Your task to perform on an android device: toggle improve location accuracy Image 0: 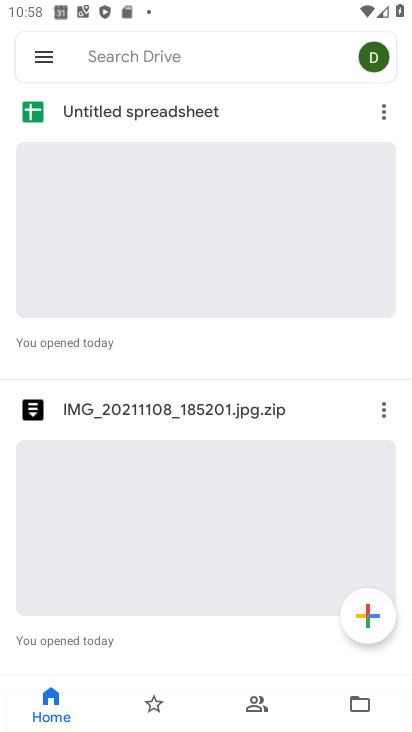
Step 0: press home button
Your task to perform on an android device: toggle improve location accuracy Image 1: 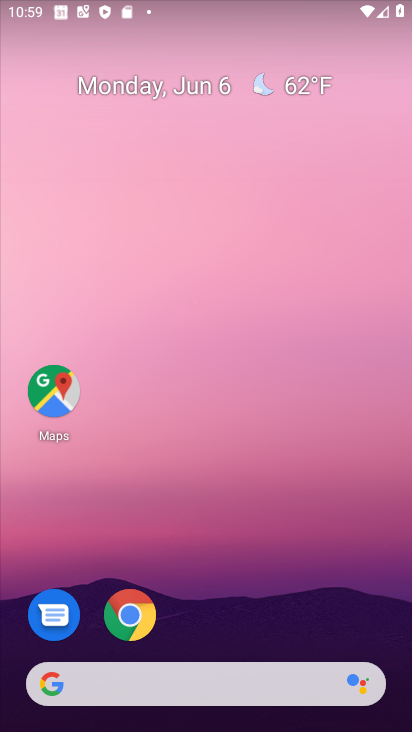
Step 1: drag from (256, 680) to (249, 172)
Your task to perform on an android device: toggle improve location accuracy Image 2: 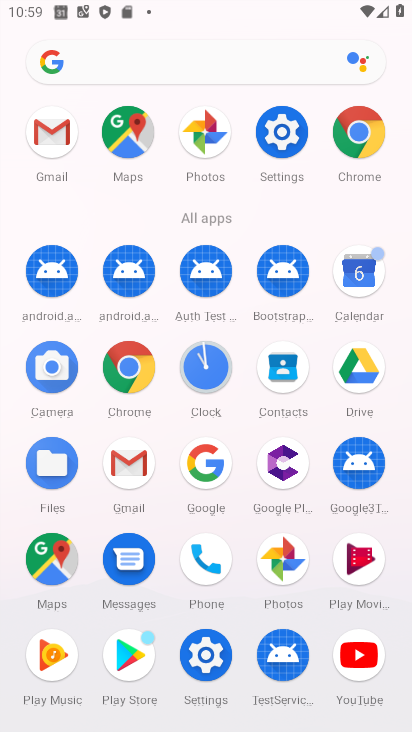
Step 2: click (265, 154)
Your task to perform on an android device: toggle improve location accuracy Image 3: 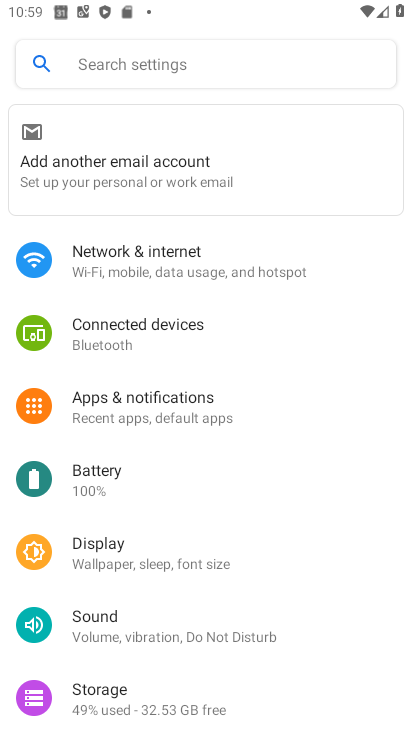
Step 3: drag from (163, 669) to (142, 287)
Your task to perform on an android device: toggle improve location accuracy Image 4: 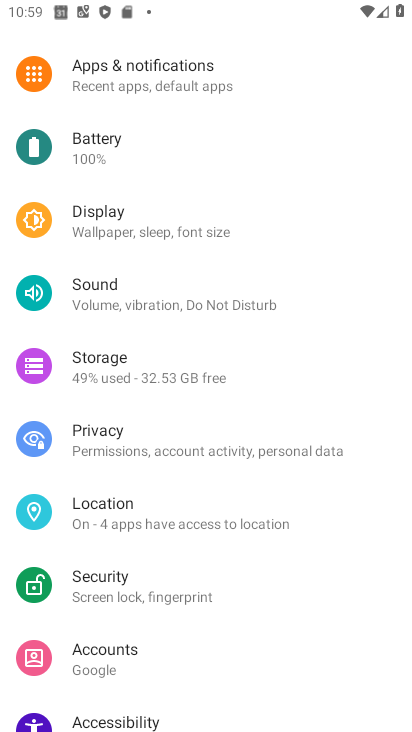
Step 4: click (151, 498)
Your task to perform on an android device: toggle improve location accuracy Image 5: 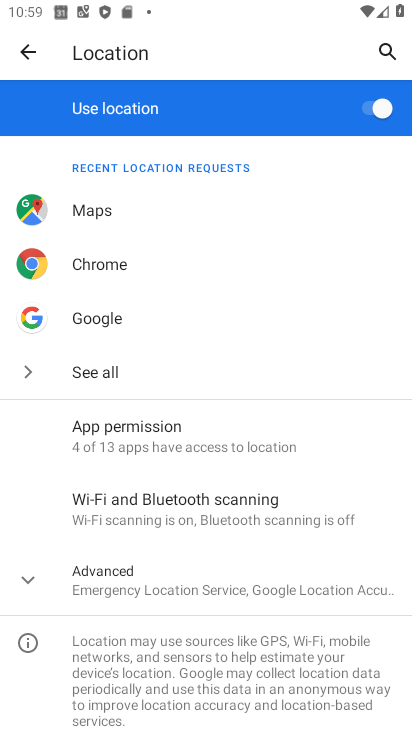
Step 5: click (157, 580)
Your task to perform on an android device: toggle improve location accuracy Image 6: 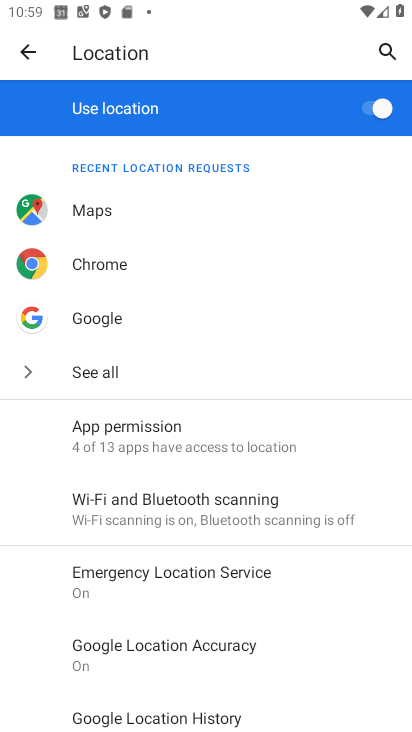
Step 6: click (218, 644)
Your task to perform on an android device: toggle improve location accuracy Image 7: 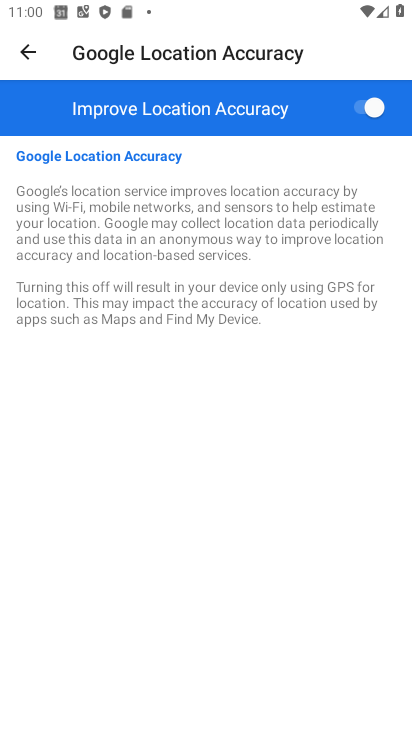
Step 7: click (364, 116)
Your task to perform on an android device: toggle improve location accuracy Image 8: 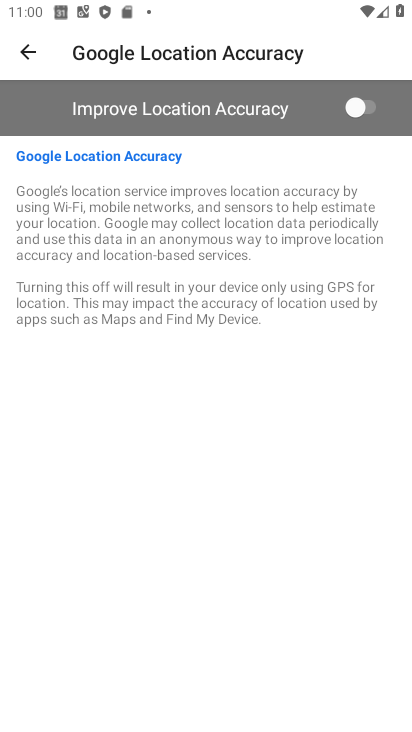
Step 8: task complete